Your task to perform on an android device: change the clock display to show seconds Image 0: 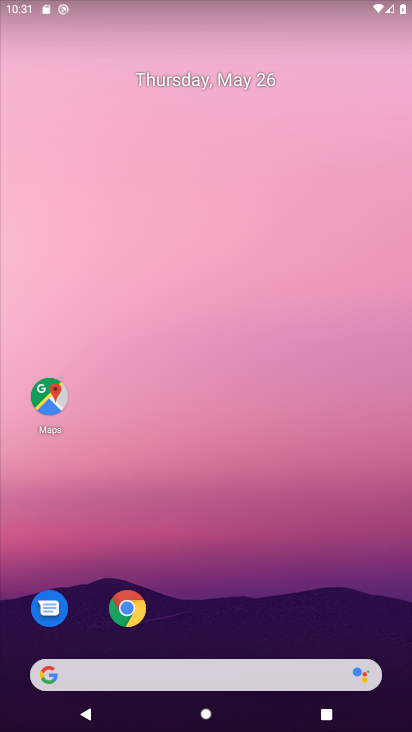
Step 0: drag from (398, 644) to (362, 120)
Your task to perform on an android device: change the clock display to show seconds Image 1: 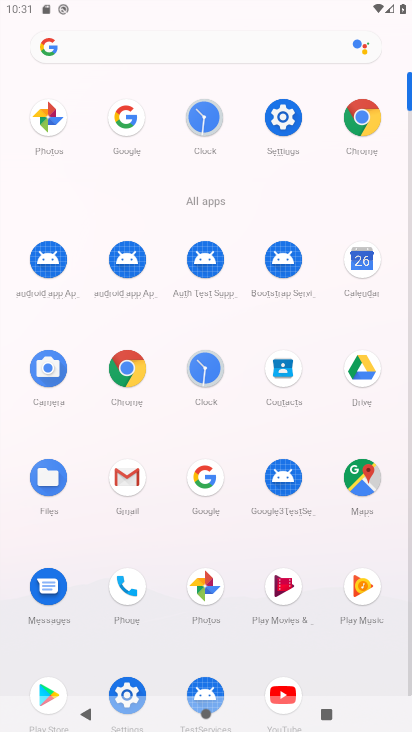
Step 1: click (280, 118)
Your task to perform on an android device: change the clock display to show seconds Image 2: 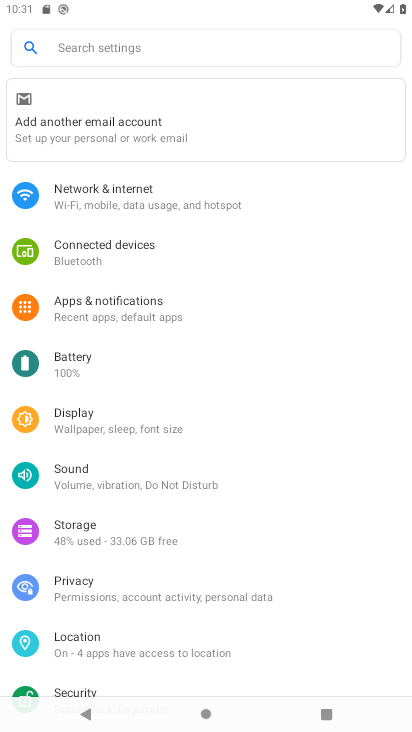
Step 2: press back button
Your task to perform on an android device: change the clock display to show seconds Image 3: 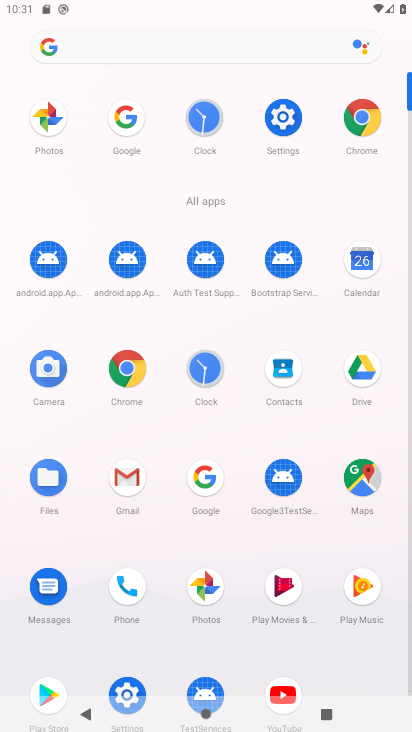
Step 3: click (204, 375)
Your task to perform on an android device: change the clock display to show seconds Image 4: 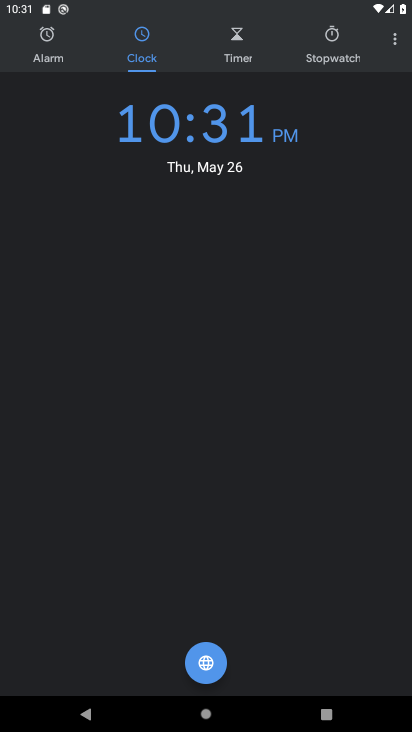
Step 4: click (395, 46)
Your task to perform on an android device: change the clock display to show seconds Image 5: 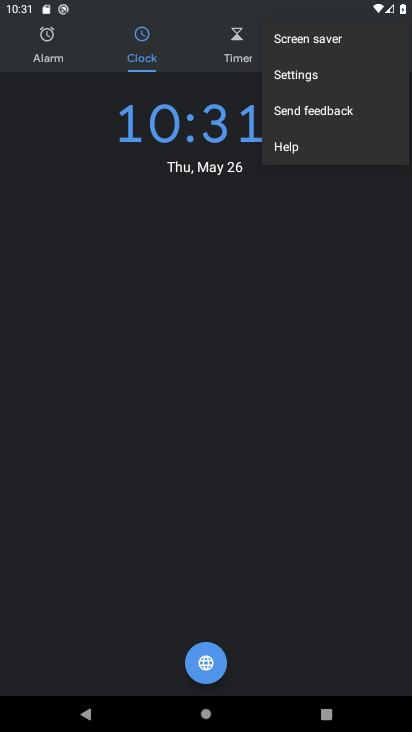
Step 5: click (311, 69)
Your task to perform on an android device: change the clock display to show seconds Image 6: 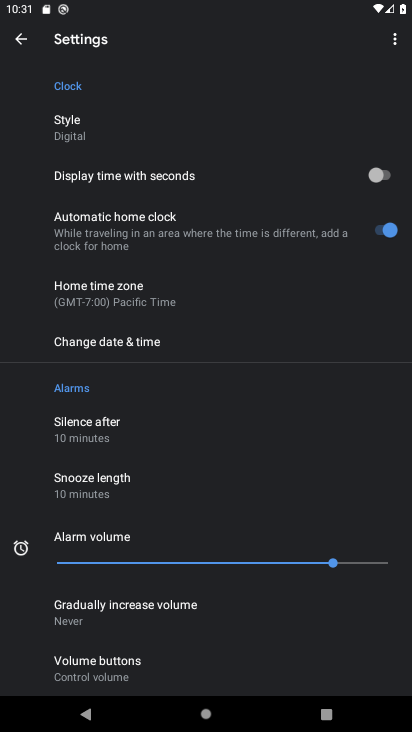
Step 6: click (385, 173)
Your task to perform on an android device: change the clock display to show seconds Image 7: 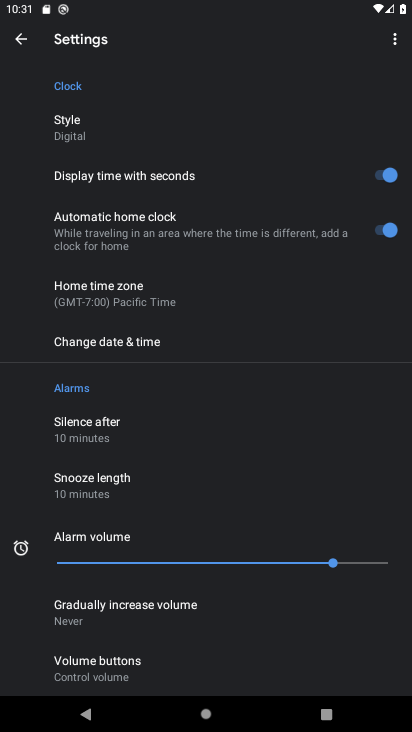
Step 7: task complete